Your task to perform on an android device: Open settings Image 0: 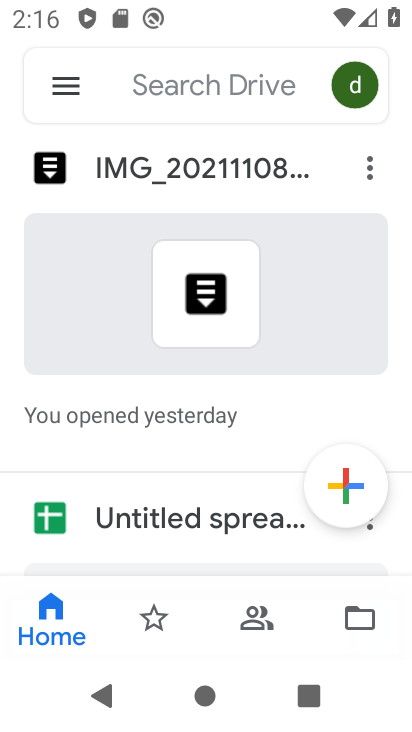
Step 0: press home button
Your task to perform on an android device: Open settings Image 1: 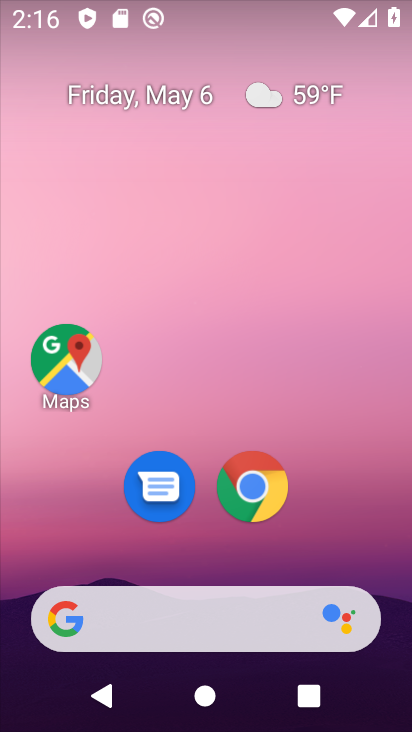
Step 1: drag from (337, 557) to (283, 29)
Your task to perform on an android device: Open settings Image 2: 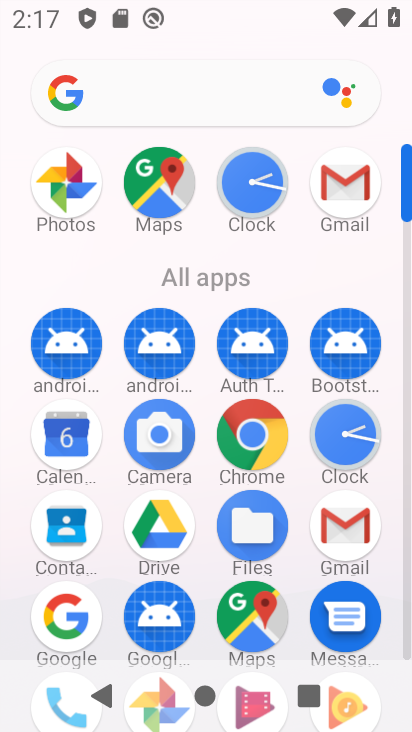
Step 2: drag from (207, 488) to (146, 141)
Your task to perform on an android device: Open settings Image 3: 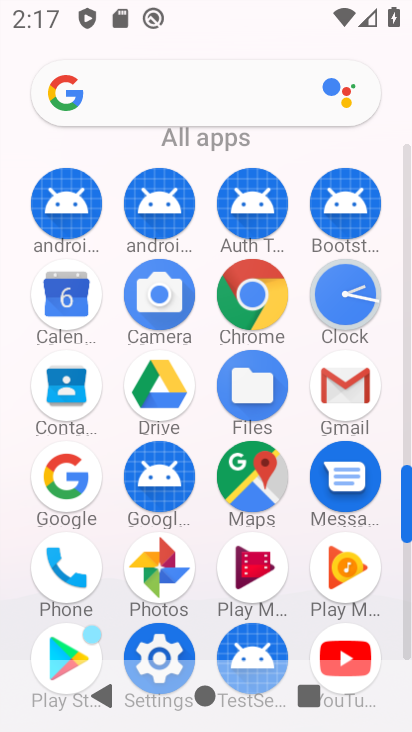
Step 3: click (156, 641)
Your task to perform on an android device: Open settings Image 4: 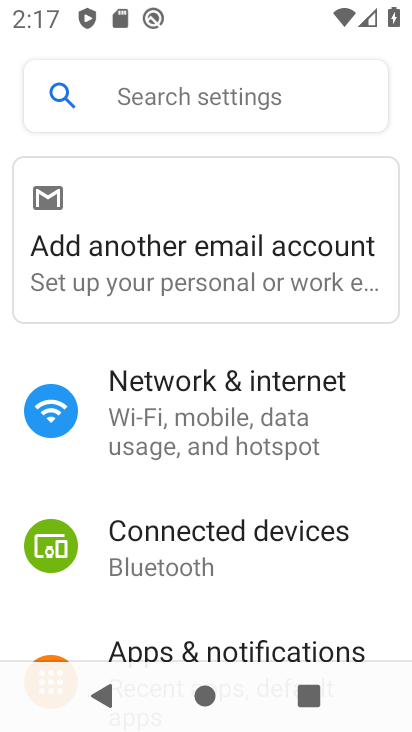
Step 4: task complete